Your task to perform on an android device: open a new tab in the chrome app Image 0: 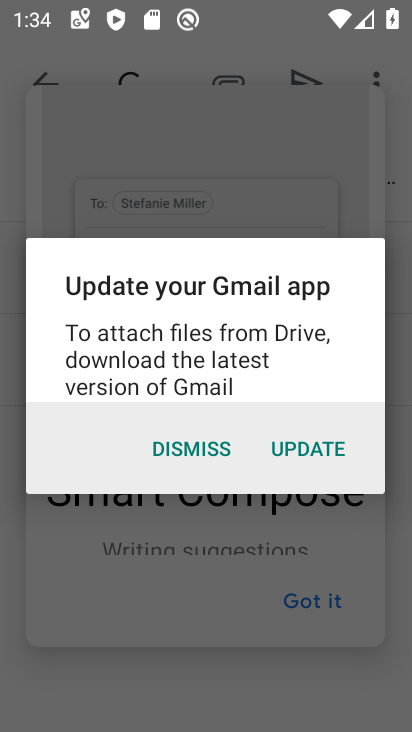
Step 0: press home button
Your task to perform on an android device: open a new tab in the chrome app Image 1: 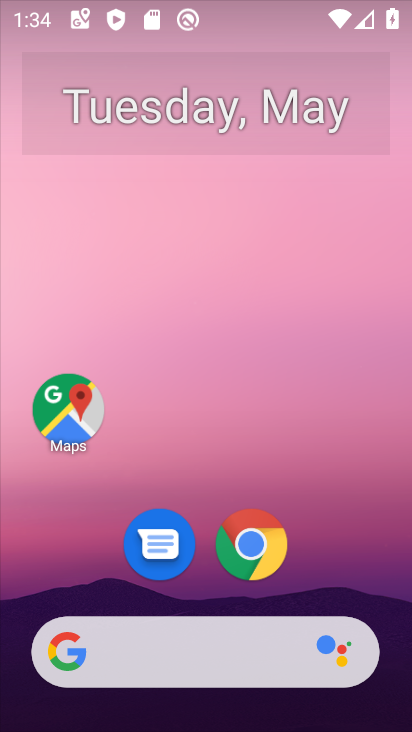
Step 1: click (255, 549)
Your task to perform on an android device: open a new tab in the chrome app Image 2: 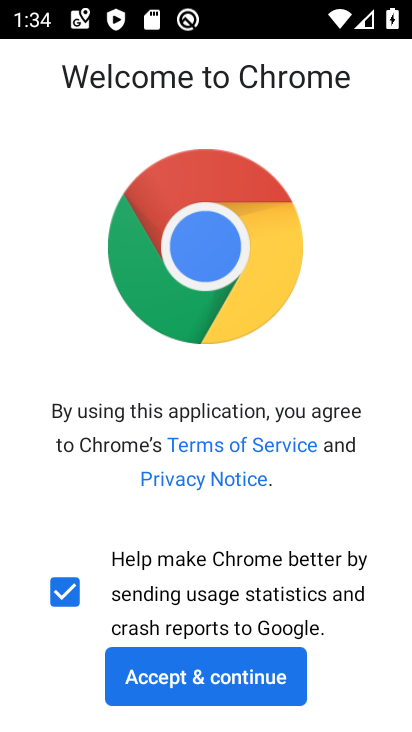
Step 2: click (235, 635)
Your task to perform on an android device: open a new tab in the chrome app Image 3: 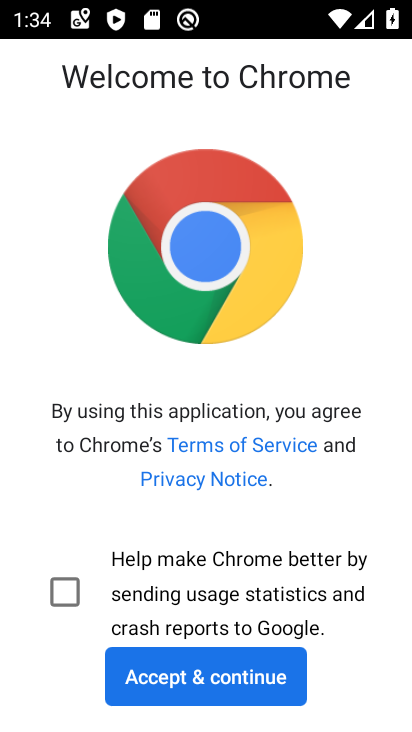
Step 3: click (237, 608)
Your task to perform on an android device: open a new tab in the chrome app Image 4: 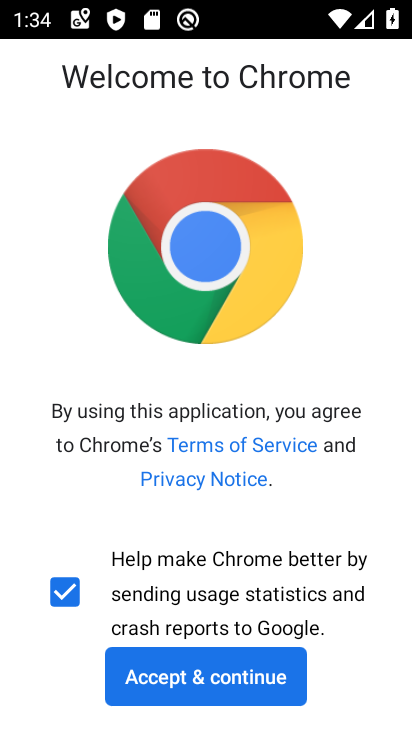
Step 4: click (218, 663)
Your task to perform on an android device: open a new tab in the chrome app Image 5: 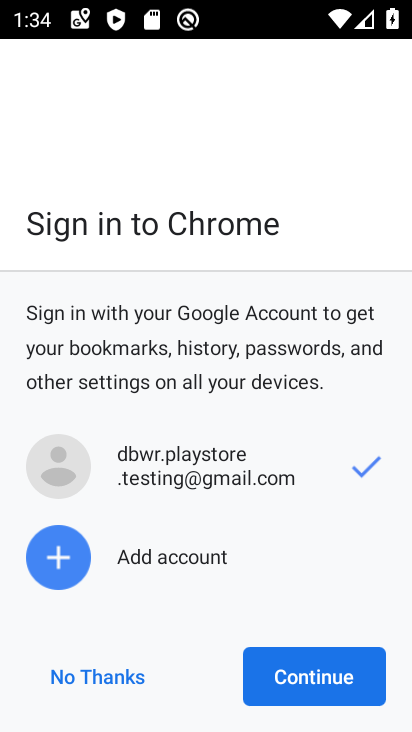
Step 5: click (293, 668)
Your task to perform on an android device: open a new tab in the chrome app Image 6: 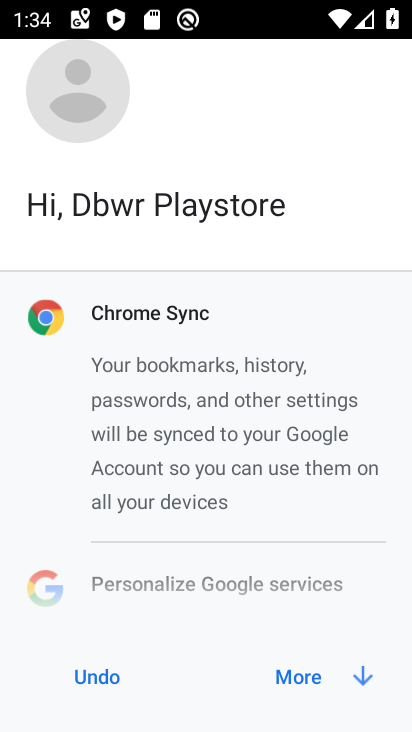
Step 6: click (308, 698)
Your task to perform on an android device: open a new tab in the chrome app Image 7: 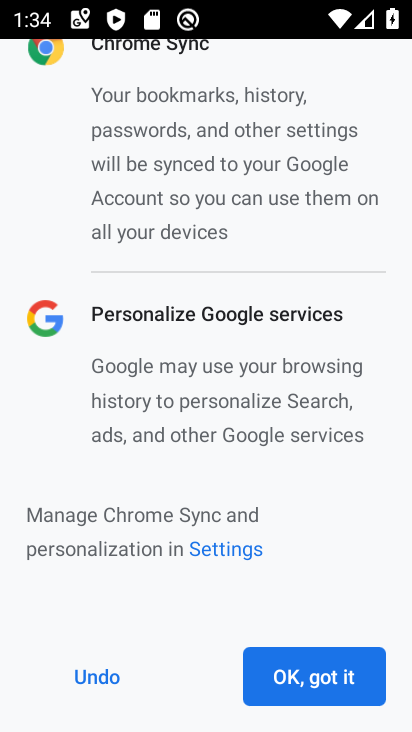
Step 7: click (309, 697)
Your task to perform on an android device: open a new tab in the chrome app Image 8: 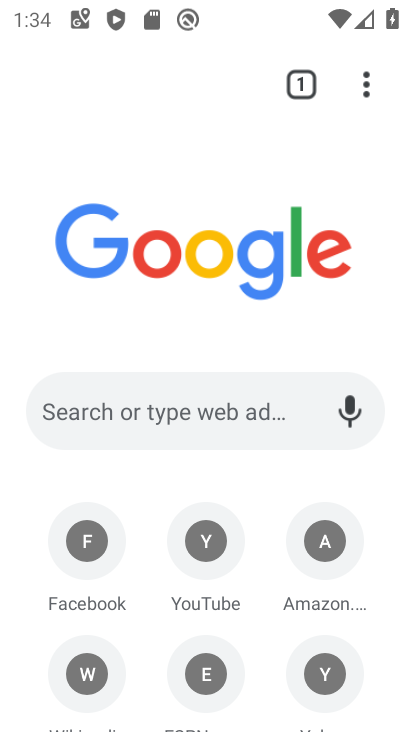
Step 8: task complete